Your task to perform on an android device: Show me recent news Image 0: 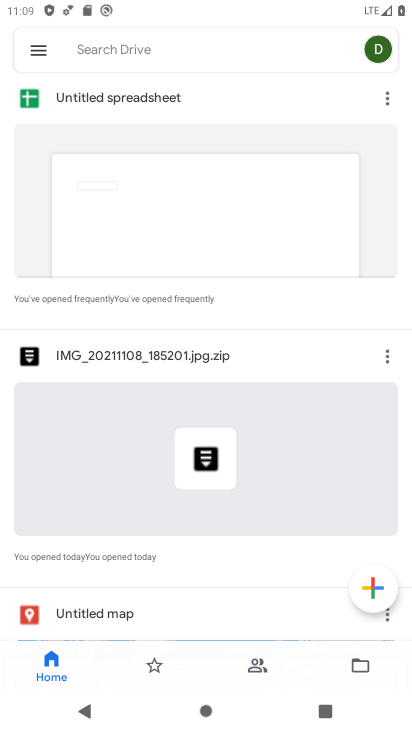
Step 0: press home button
Your task to perform on an android device: Show me recent news Image 1: 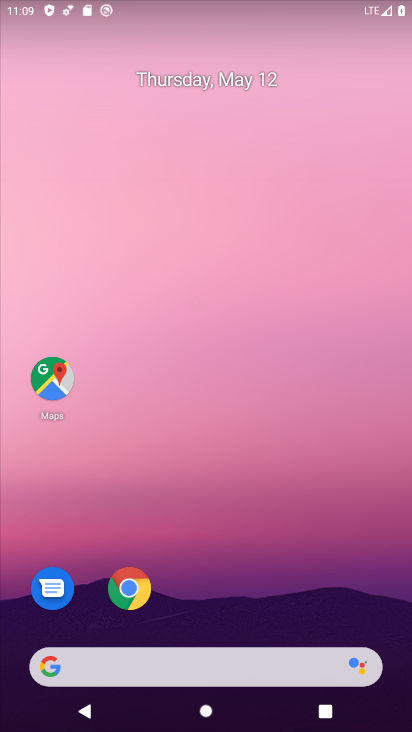
Step 1: drag from (225, 576) to (247, 102)
Your task to perform on an android device: Show me recent news Image 2: 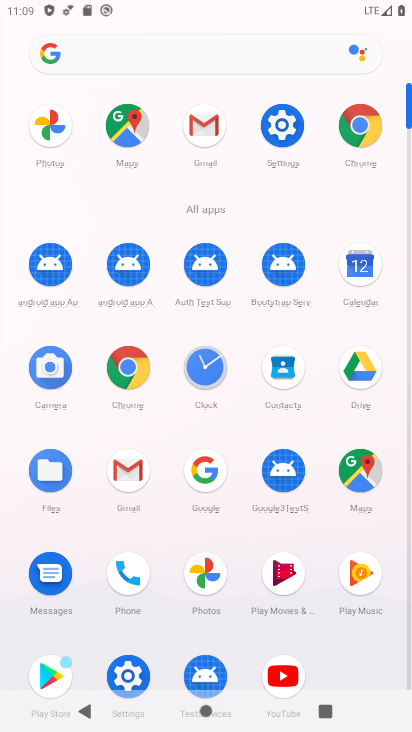
Step 2: click (377, 133)
Your task to perform on an android device: Show me recent news Image 3: 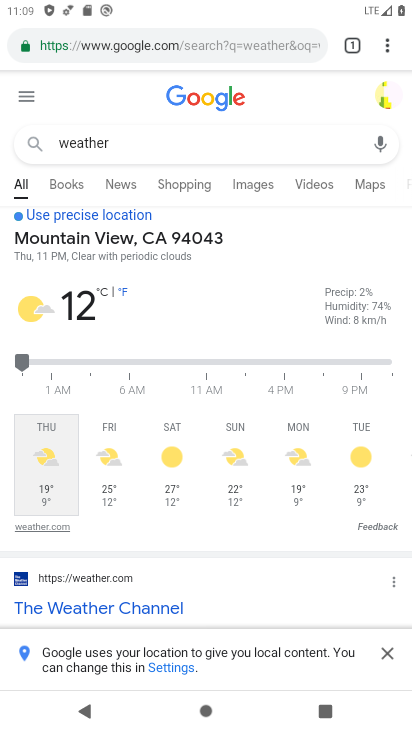
Step 3: click (214, 141)
Your task to perform on an android device: Show me recent news Image 4: 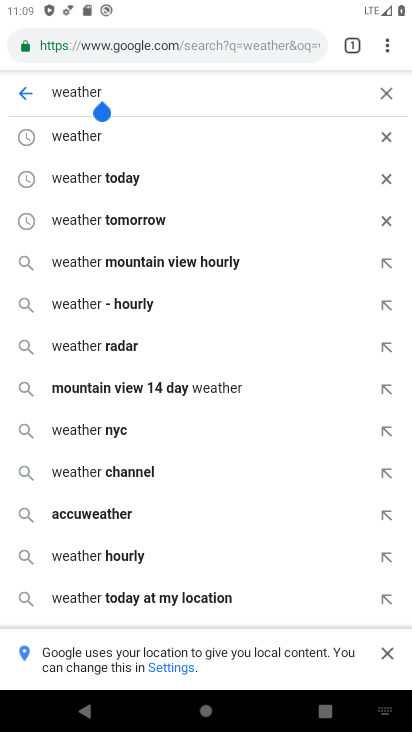
Step 4: click (388, 93)
Your task to perform on an android device: Show me recent news Image 5: 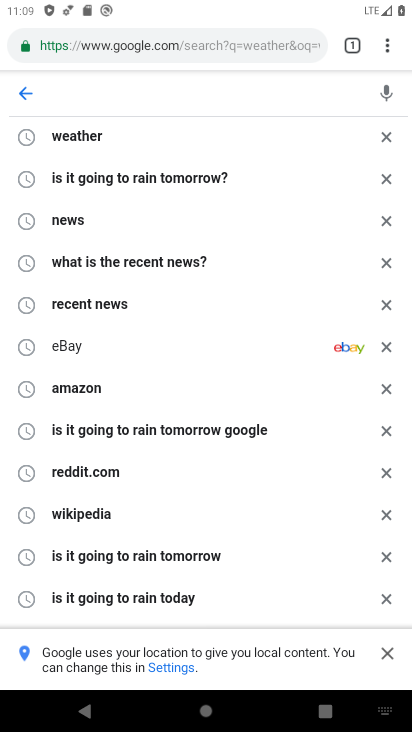
Step 5: type "news"
Your task to perform on an android device: Show me recent news Image 6: 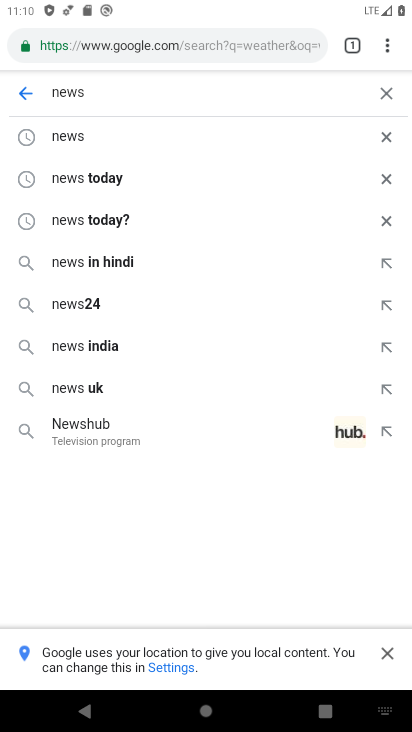
Step 6: click (84, 140)
Your task to perform on an android device: Show me recent news Image 7: 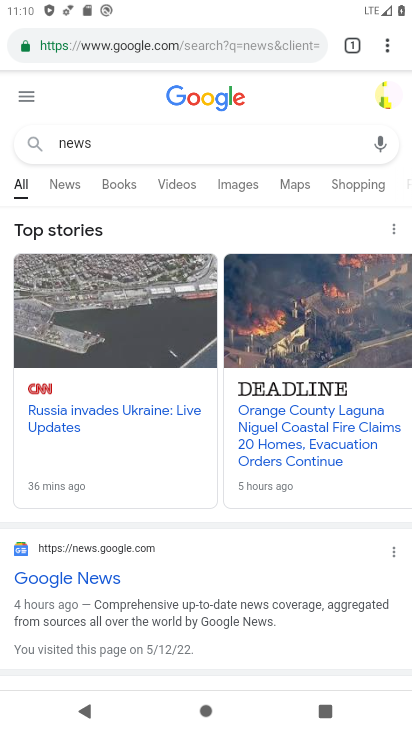
Step 7: click (68, 180)
Your task to perform on an android device: Show me recent news Image 8: 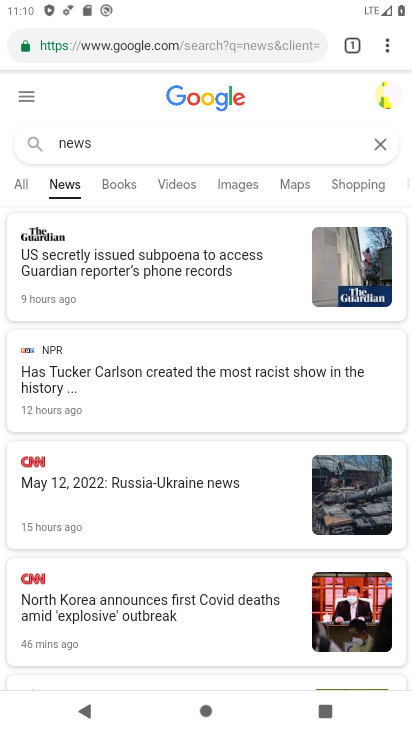
Step 8: task complete